Your task to perform on an android device: empty trash in google photos Image 0: 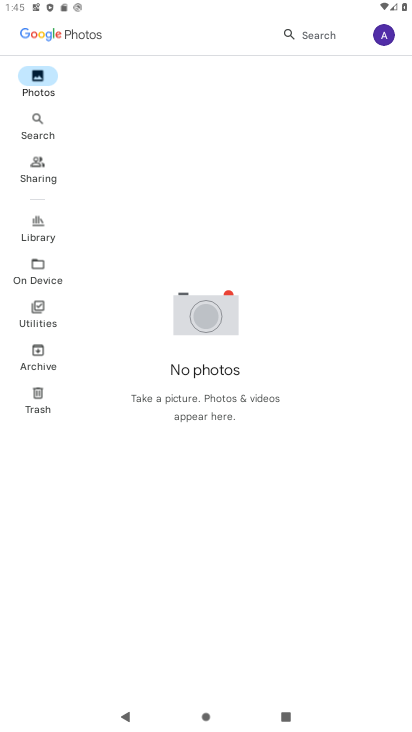
Step 0: click (27, 401)
Your task to perform on an android device: empty trash in google photos Image 1: 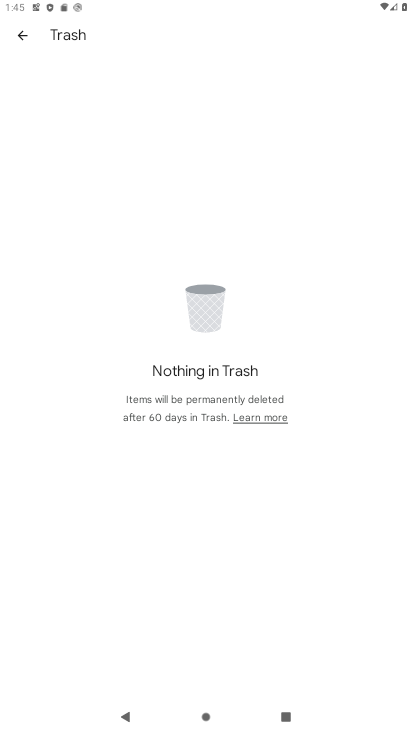
Step 1: task complete